Your task to perform on an android device: choose inbox layout in the gmail app Image 0: 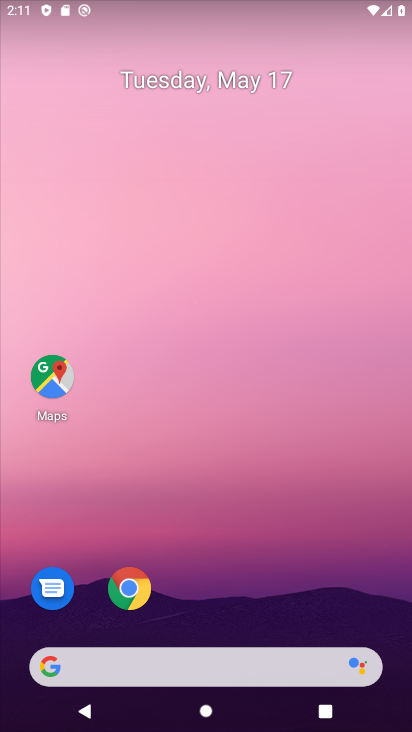
Step 0: drag from (262, 588) to (173, 101)
Your task to perform on an android device: choose inbox layout in the gmail app Image 1: 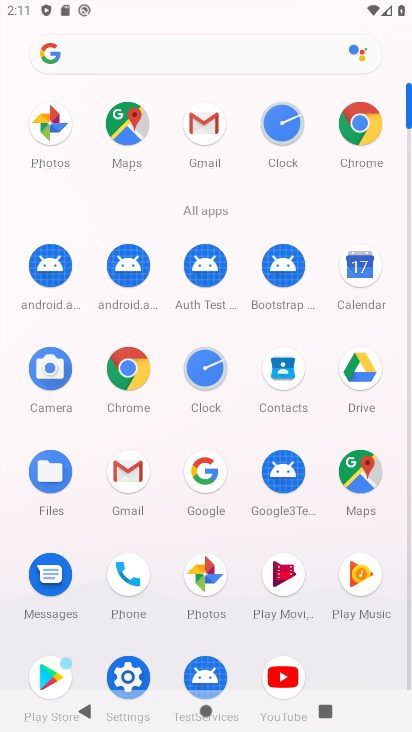
Step 1: click (122, 471)
Your task to perform on an android device: choose inbox layout in the gmail app Image 2: 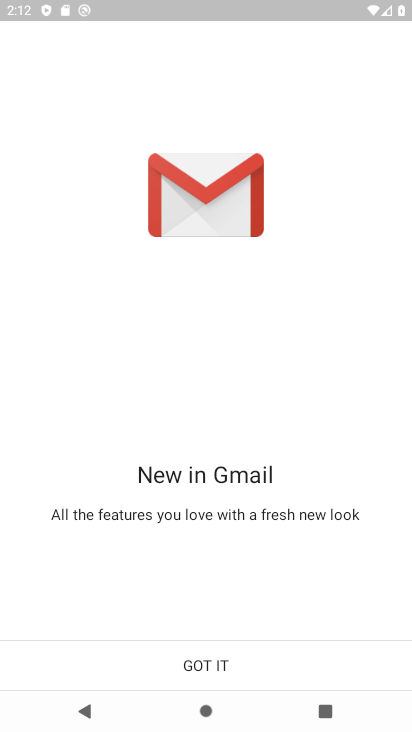
Step 2: click (254, 658)
Your task to perform on an android device: choose inbox layout in the gmail app Image 3: 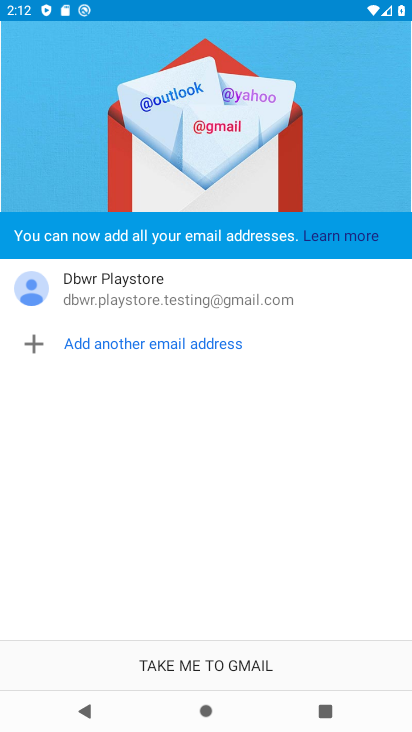
Step 3: click (243, 662)
Your task to perform on an android device: choose inbox layout in the gmail app Image 4: 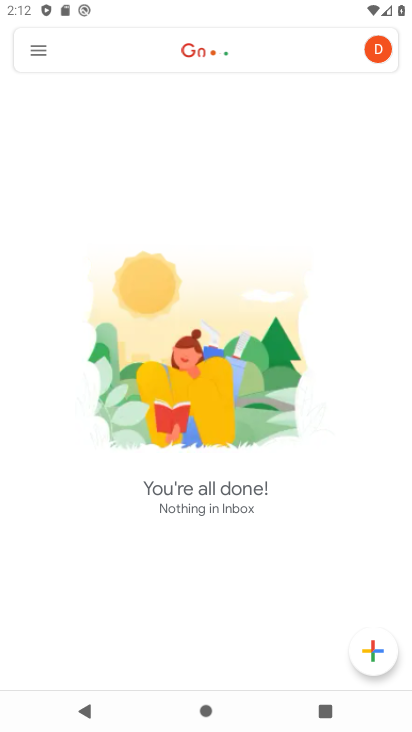
Step 4: click (33, 47)
Your task to perform on an android device: choose inbox layout in the gmail app Image 5: 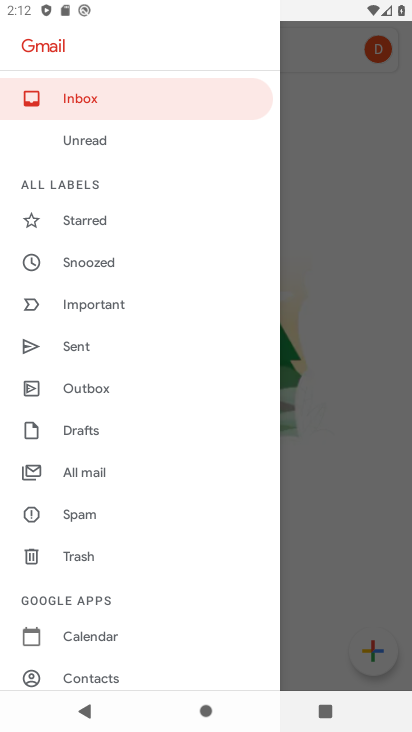
Step 5: drag from (181, 631) to (162, 296)
Your task to perform on an android device: choose inbox layout in the gmail app Image 6: 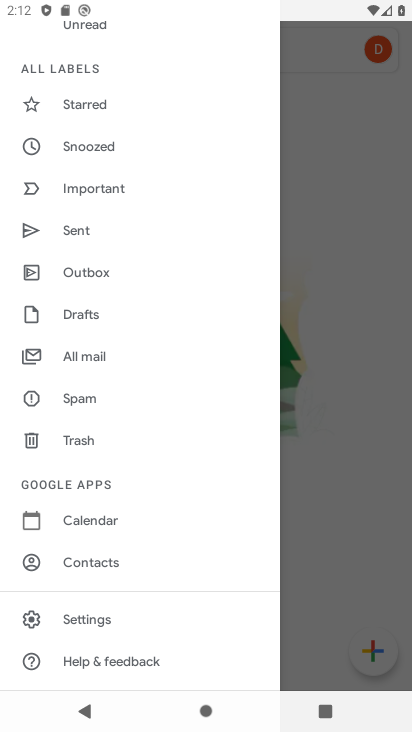
Step 6: click (110, 625)
Your task to perform on an android device: choose inbox layout in the gmail app Image 7: 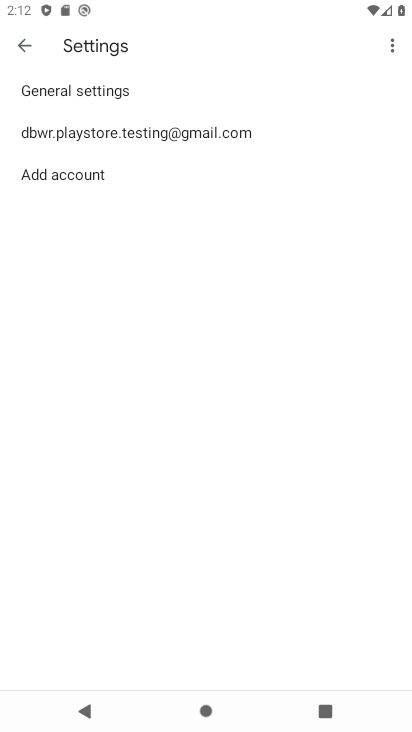
Step 7: click (144, 133)
Your task to perform on an android device: choose inbox layout in the gmail app Image 8: 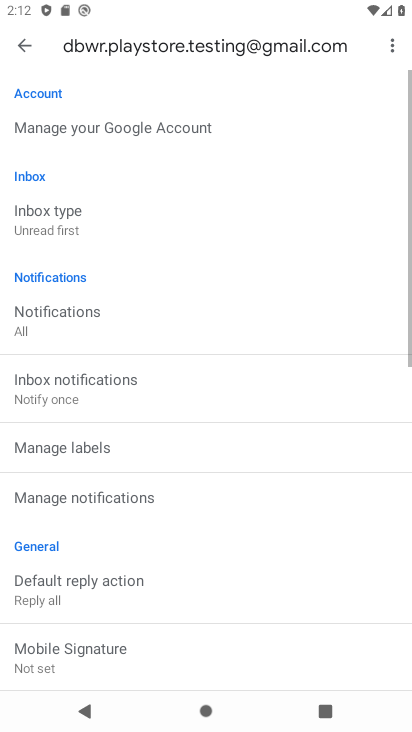
Step 8: click (69, 225)
Your task to perform on an android device: choose inbox layout in the gmail app Image 9: 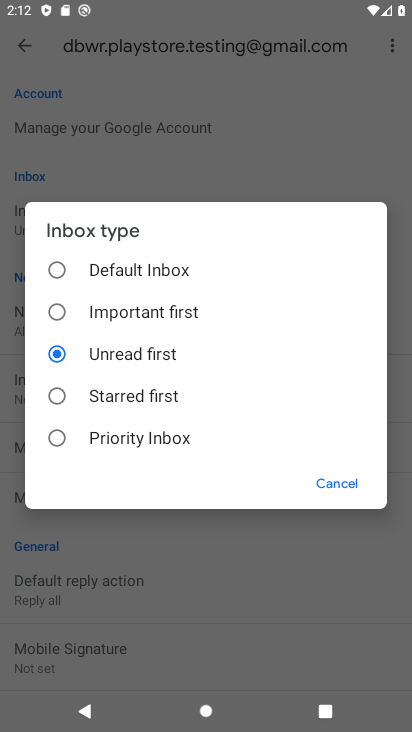
Step 9: click (143, 278)
Your task to perform on an android device: choose inbox layout in the gmail app Image 10: 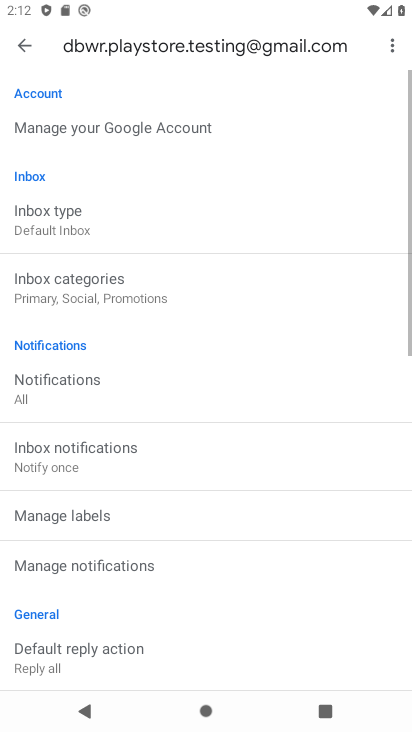
Step 10: task complete